Your task to perform on an android device: Show me productivity apps on the Play Store Image 0: 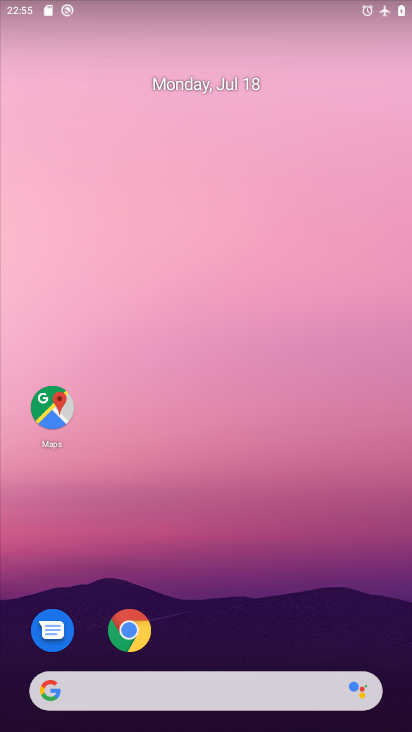
Step 0: drag from (258, 603) to (261, 370)
Your task to perform on an android device: Show me productivity apps on the Play Store Image 1: 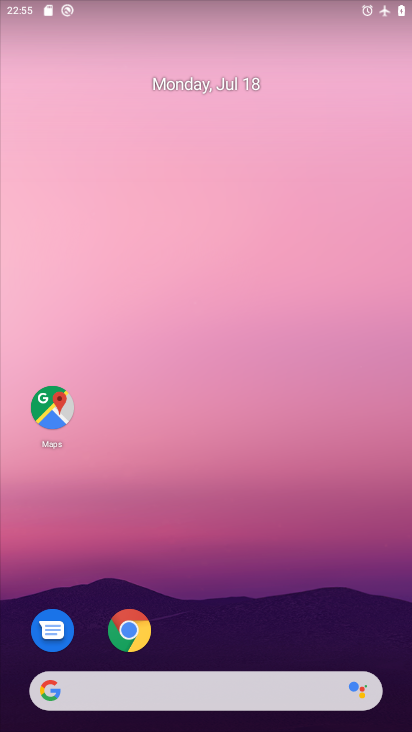
Step 1: drag from (237, 595) to (246, 442)
Your task to perform on an android device: Show me productivity apps on the Play Store Image 2: 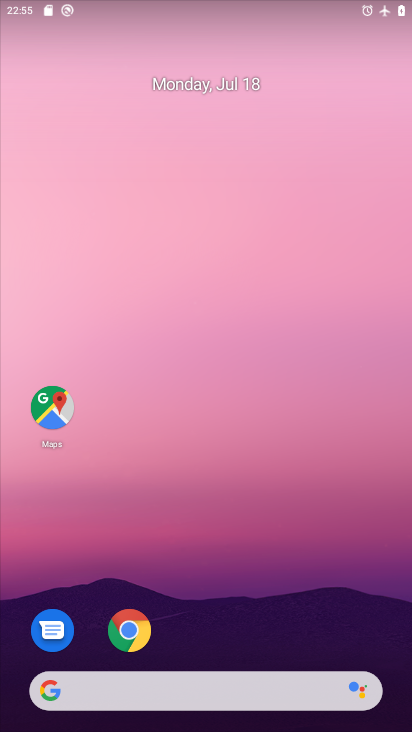
Step 2: drag from (246, 598) to (231, 375)
Your task to perform on an android device: Show me productivity apps on the Play Store Image 3: 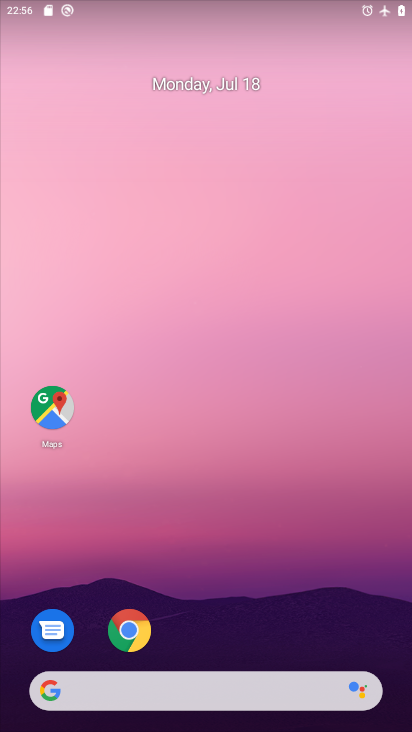
Step 3: drag from (208, 661) to (213, 379)
Your task to perform on an android device: Show me productivity apps on the Play Store Image 4: 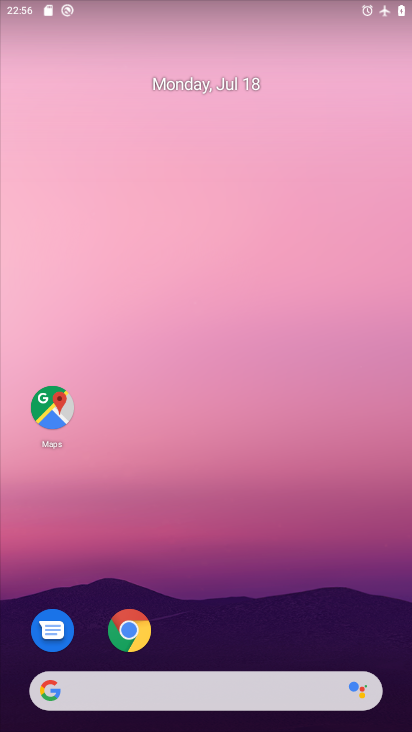
Step 4: drag from (199, 603) to (234, 323)
Your task to perform on an android device: Show me productivity apps on the Play Store Image 5: 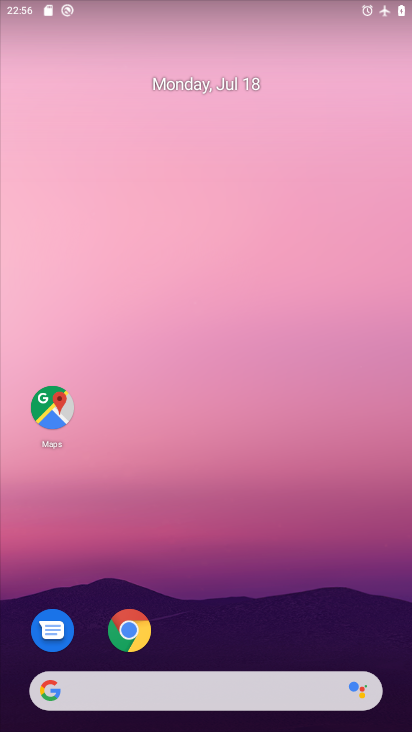
Step 5: drag from (275, 672) to (261, 20)
Your task to perform on an android device: Show me productivity apps on the Play Store Image 6: 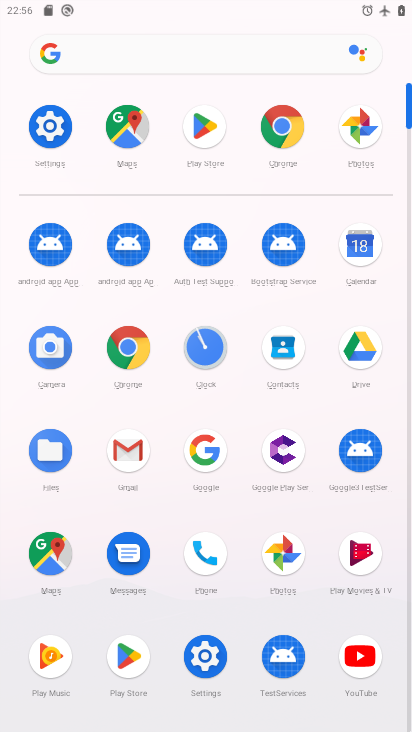
Step 6: click (128, 634)
Your task to perform on an android device: Show me productivity apps on the Play Store Image 7: 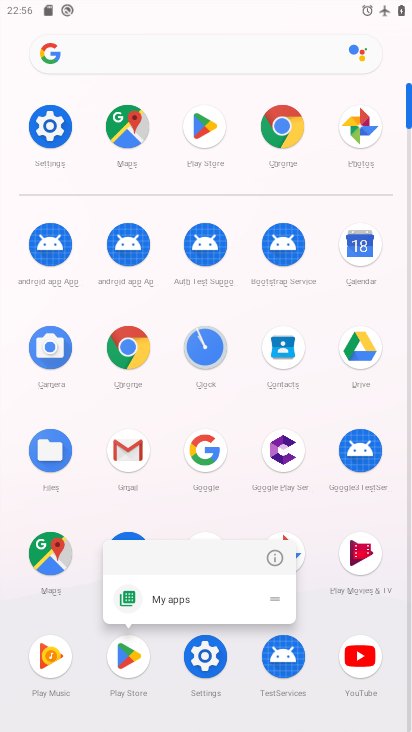
Step 7: click (115, 656)
Your task to perform on an android device: Show me productivity apps on the Play Store Image 8: 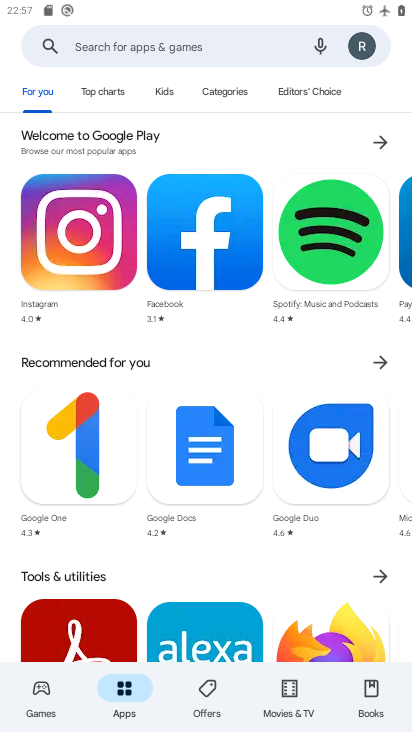
Step 8: task complete